Your task to perform on an android device: Show me popular videos on Youtube Image 0: 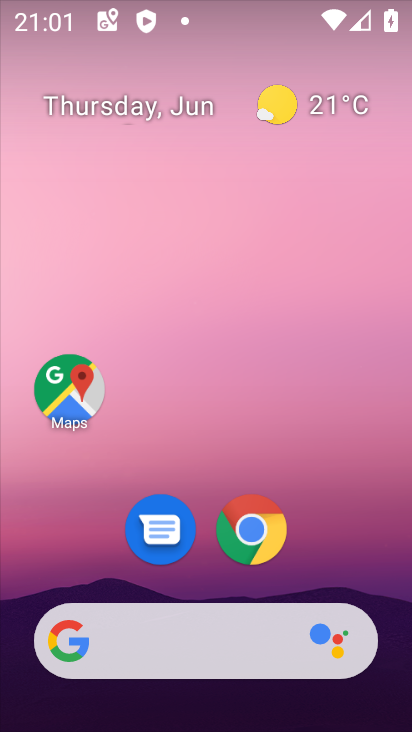
Step 0: drag from (331, 538) to (213, 152)
Your task to perform on an android device: Show me popular videos on Youtube Image 1: 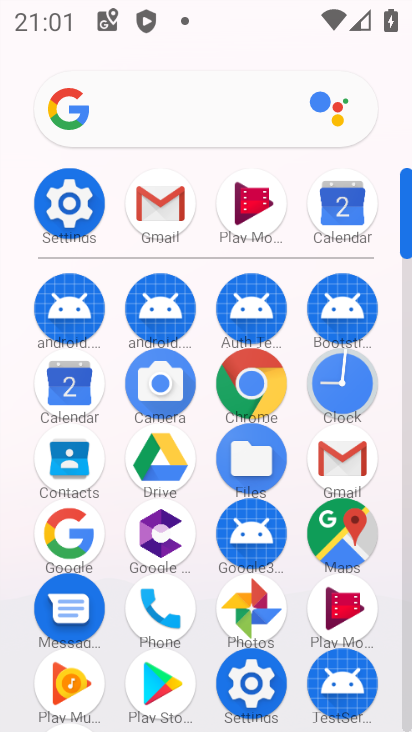
Step 1: drag from (201, 638) to (182, 283)
Your task to perform on an android device: Show me popular videos on Youtube Image 2: 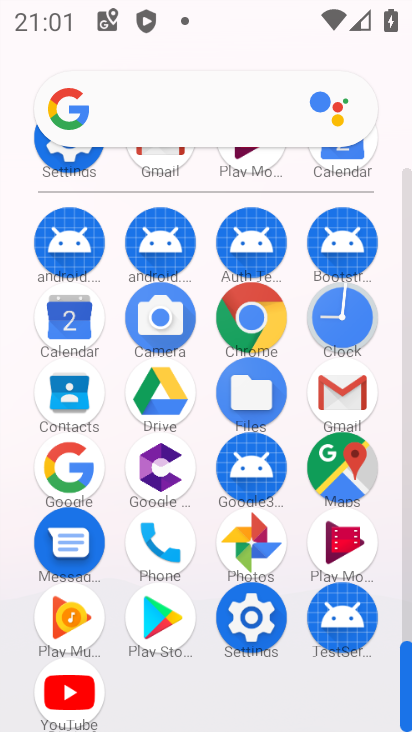
Step 2: click (68, 695)
Your task to perform on an android device: Show me popular videos on Youtube Image 3: 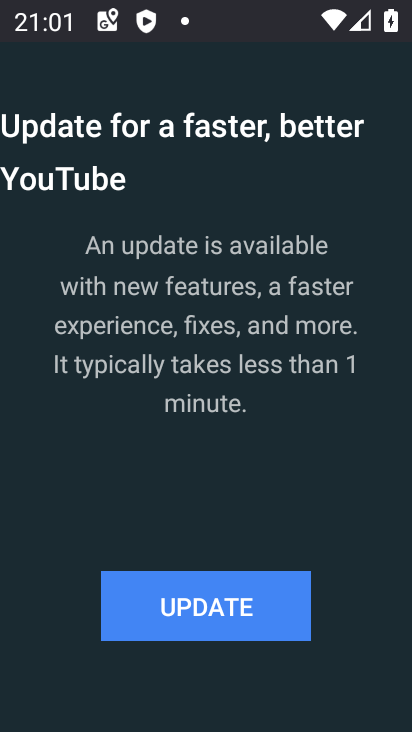
Step 3: click (180, 607)
Your task to perform on an android device: Show me popular videos on Youtube Image 4: 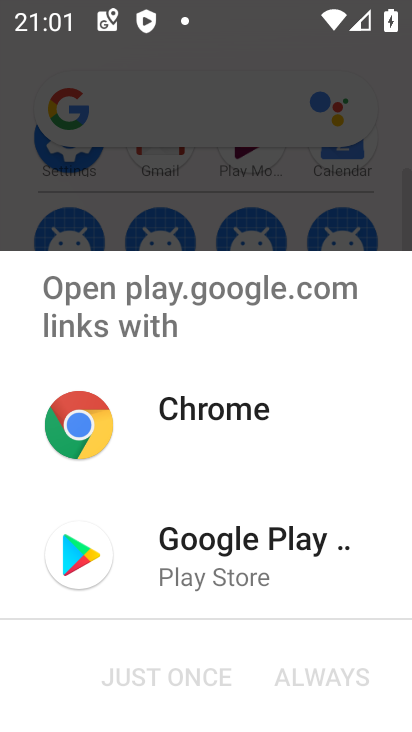
Step 4: click (197, 543)
Your task to perform on an android device: Show me popular videos on Youtube Image 5: 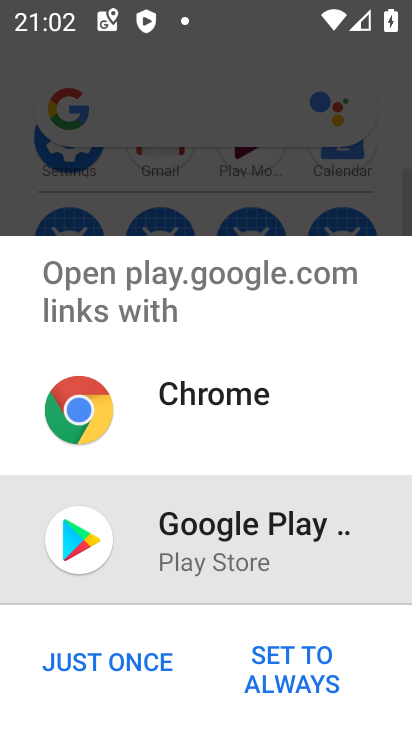
Step 5: click (122, 659)
Your task to perform on an android device: Show me popular videos on Youtube Image 6: 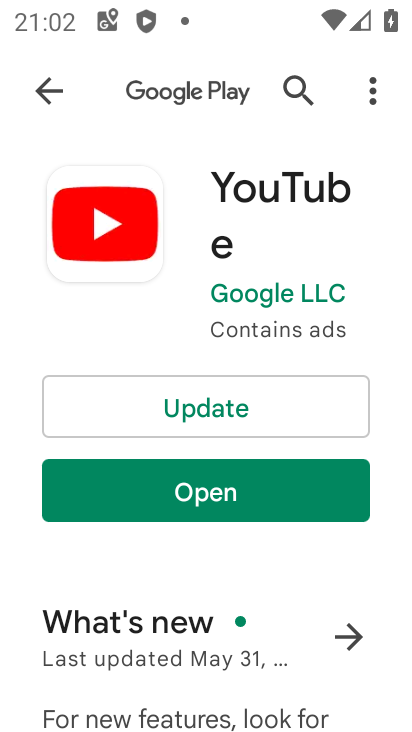
Step 6: click (207, 406)
Your task to perform on an android device: Show me popular videos on Youtube Image 7: 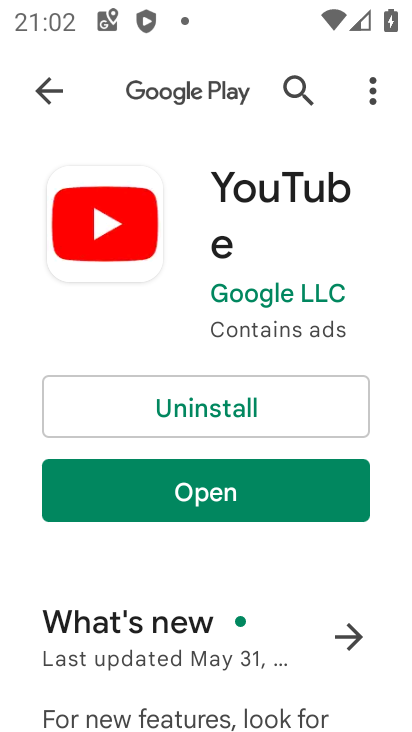
Step 7: click (214, 489)
Your task to perform on an android device: Show me popular videos on Youtube Image 8: 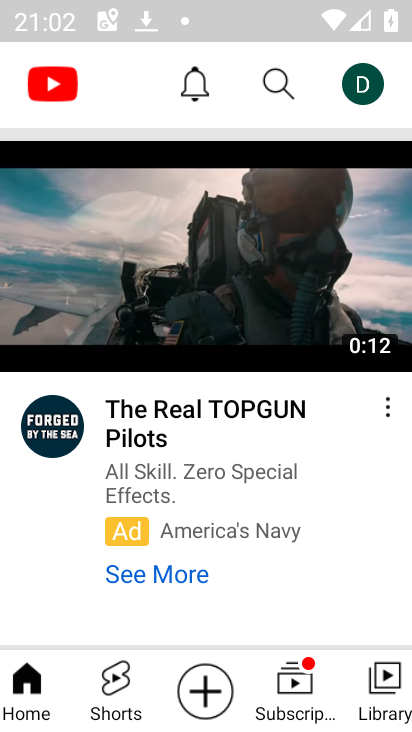
Step 8: click (118, 682)
Your task to perform on an android device: Show me popular videos on Youtube Image 9: 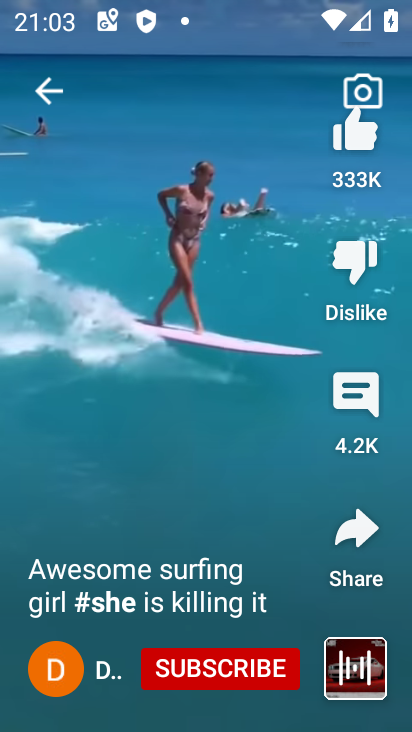
Step 9: task complete